Your task to perform on an android device: Open Yahoo.com Image 0: 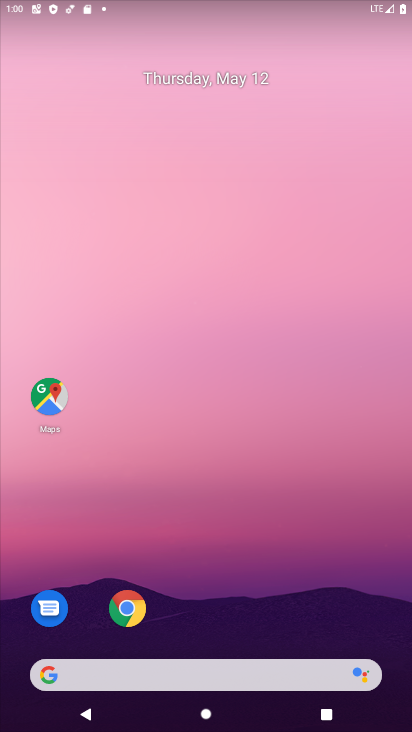
Step 0: click (141, 613)
Your task to perform on an android device: Open Yahoo.com Image 1: 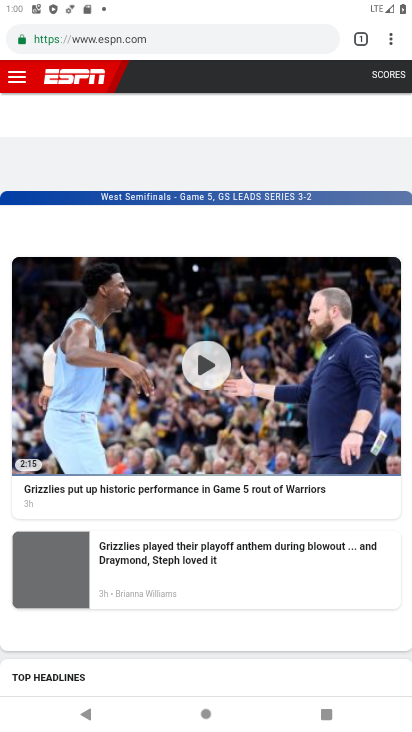
Step 1: click (97, 36)
Your task to perform on an android device: Open Yahoo.com Image 2: 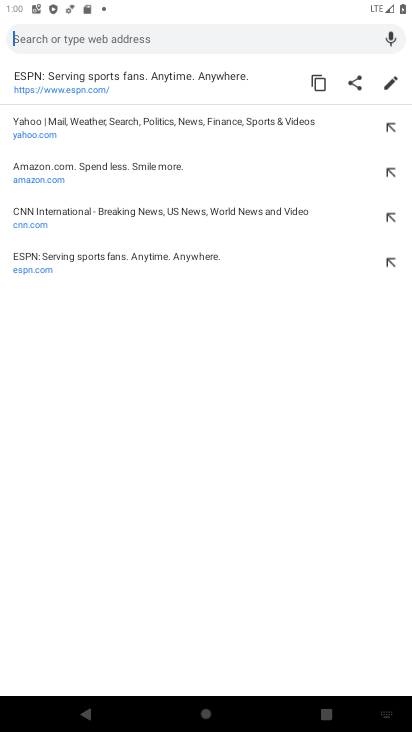
Step 2: click (46, 127)
Your task to perform on an android device: Open Yahoo.com Image 3: 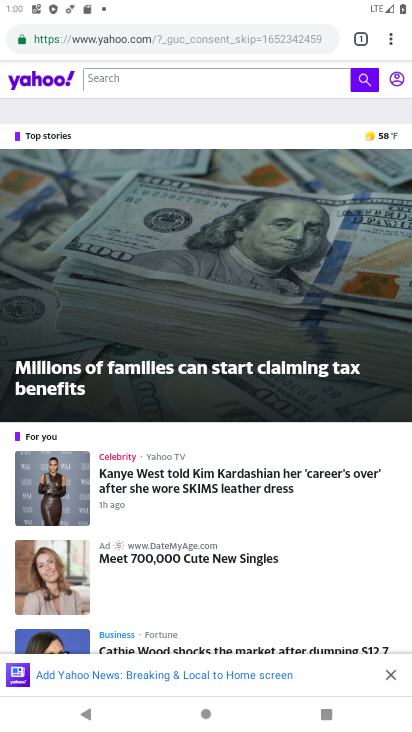
Step 3: task complete